Your task to perform on an android device: add a label to a message in the gmail app Image 0: 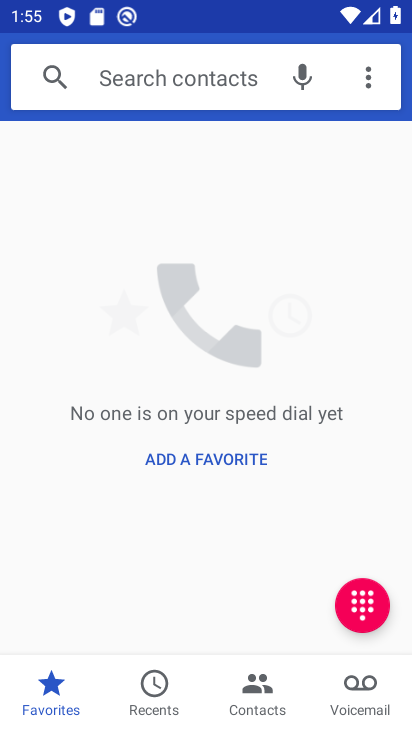
Step 0: press home button
Your task to perform on an android device: add a label to a message in the gmail app Image 1: 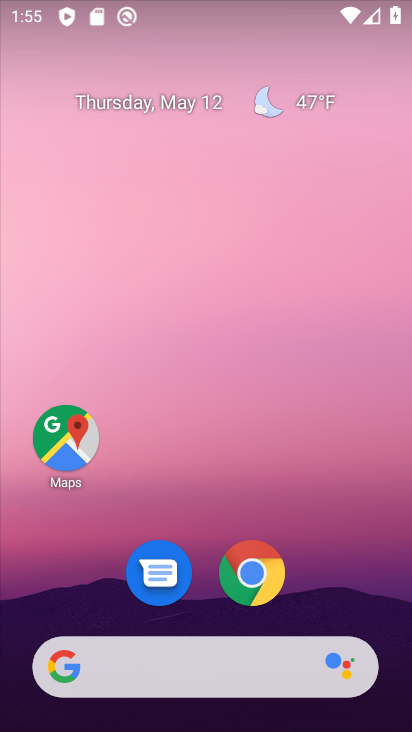
Step 1: drag from (198, 614) to (284, 57)
Your task to perform on an android device: add a label to a message in the gmail app Image 2: 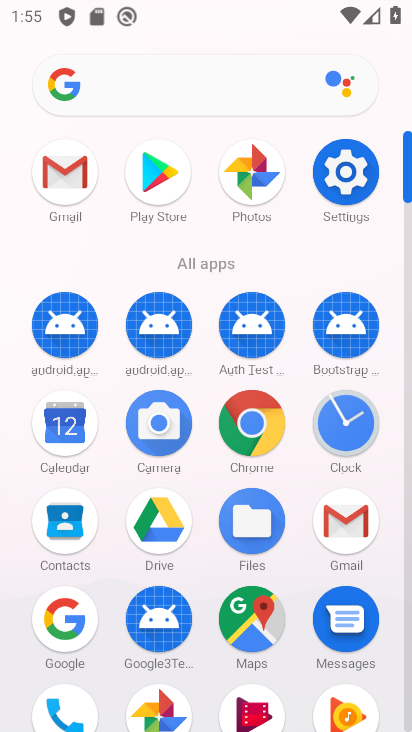
Step 2: click (340, 542)
Your task to perform on an android device: add a label to a message in the gmail app Image 3: 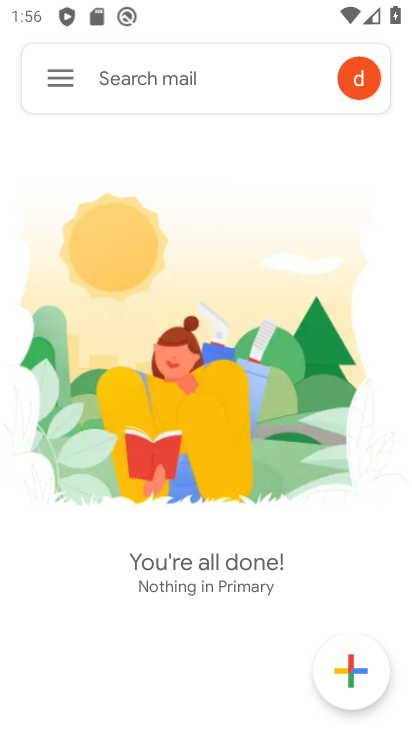
Step 3: task complete